Your task to perform on an android device: Open the stopwatch Image 0: 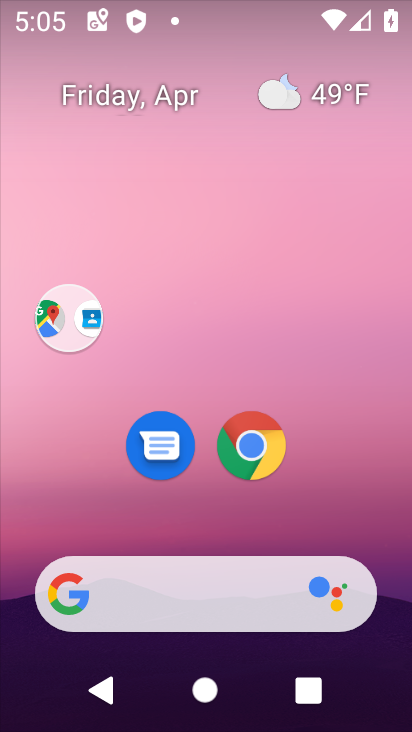
Step 0: drag from (351, 509) to (261, 108)
Your task to perform on an android device: Open the stopwatch Image 1: 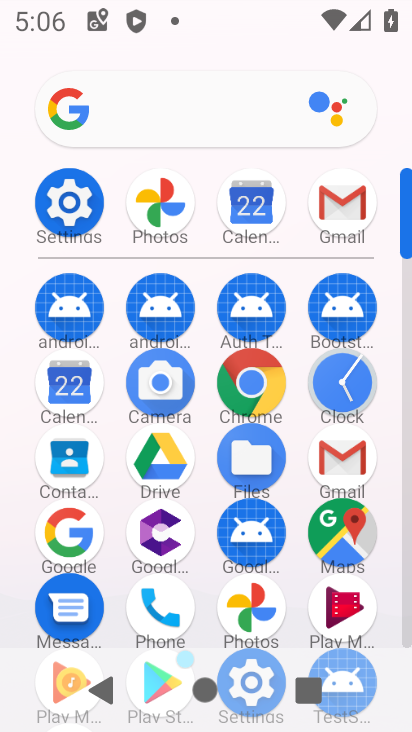
Step 1: click (338, 379)
Your task to perform on an android device: Open the stopwatch Image 2: 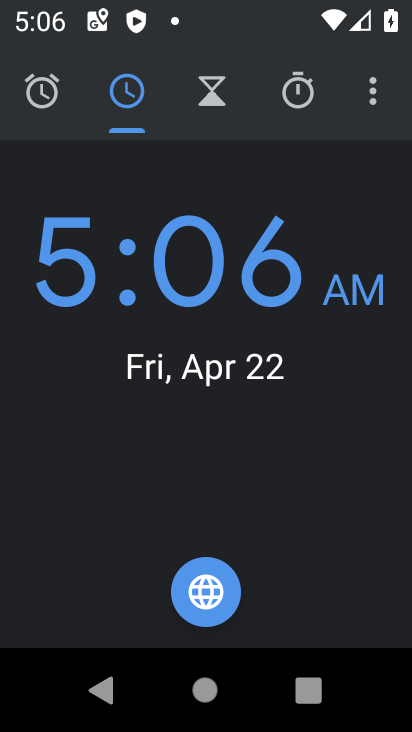
Step 2: click (306, 103)
Your task to perform on an android device: Open the stopwatch Image 3: 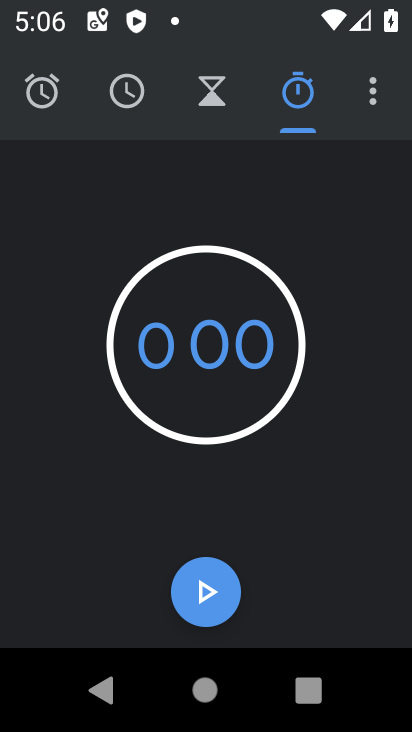
Step 3: task complete